Your task to perform on an android device: Toggle the flashlight Image 0: 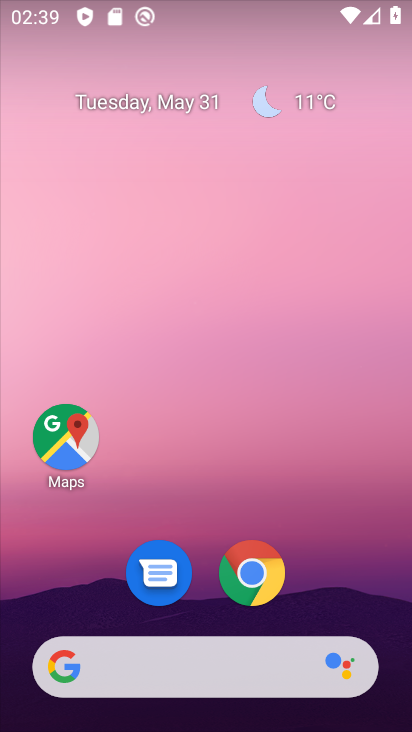
Step 0: drag from (298, 7) to (408, 480)
Your task to perform on an android device: Toggle the flashlight Image 1: 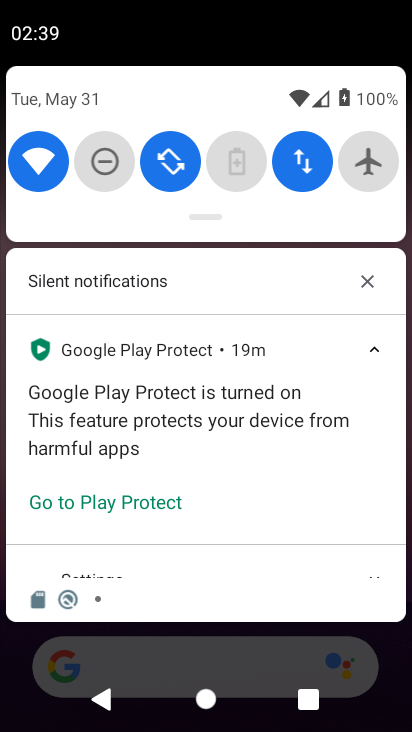
Step 1: drag from (271, 187) to (294, 520)
Your task to perform on an android device: Toggle the flashlight Image 2: 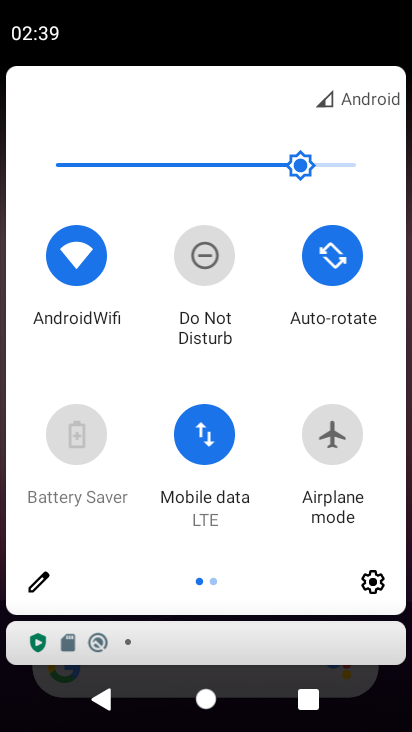
Step 2: click (39, 577)
Your task to perform on an android device: Toggle the flashlight Image 3: 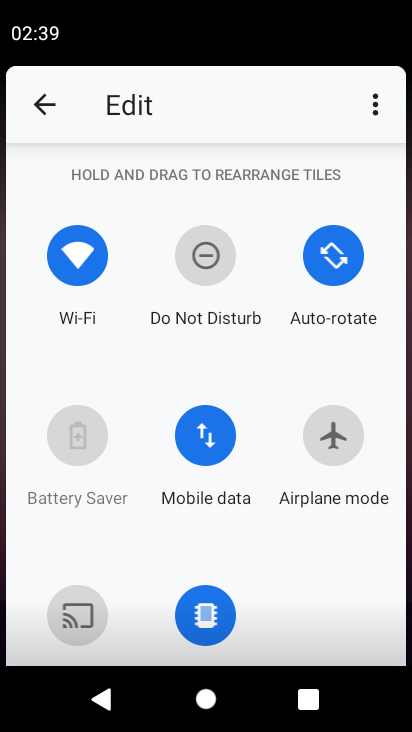
Step 3: task complete